Your task to perform on an android device: Add dell xps to the cart on target Image 0: 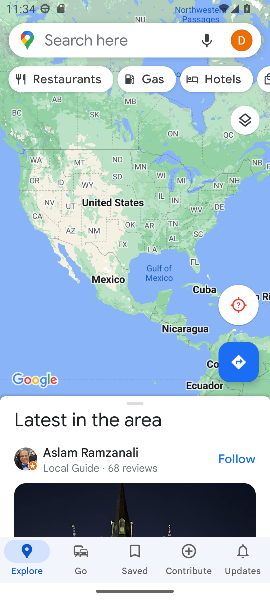
Step 0: press home button
Your task to perform on an android device: Add dell xps to the cart on target Image 1: 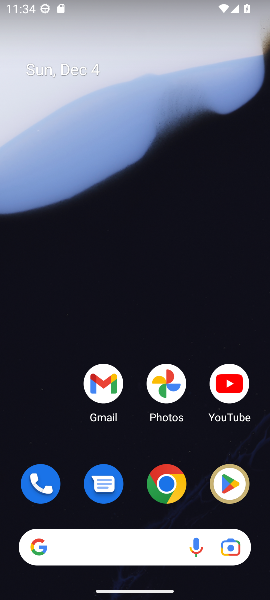
Step 1: click (170, 482)
Your task to perform on an android device: Add dell xps to the cart on target Image 2: 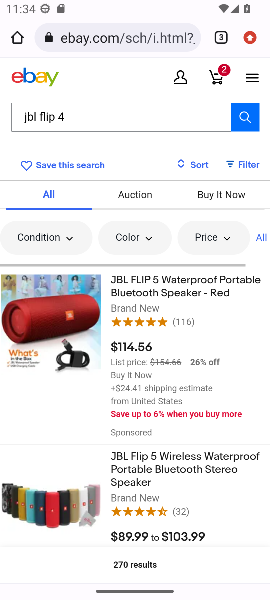
Step 2: click (111, 42)
Your task to perform on an android device: Add dell xps to the cart on target Image 3: 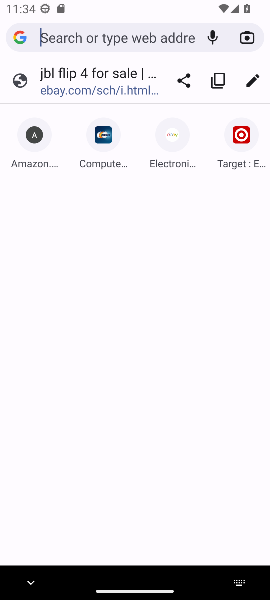
Step 3: click (247, 153)
Your task to perform on an android device: Add dell xps to the cart on target Image 4: 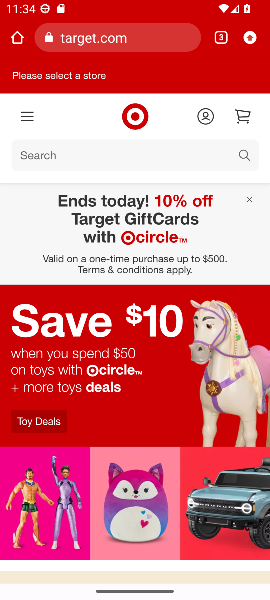
Step 4: click (52, 154)
Your task to perform on an android device: Add dell xps to the cart on target Image 5: 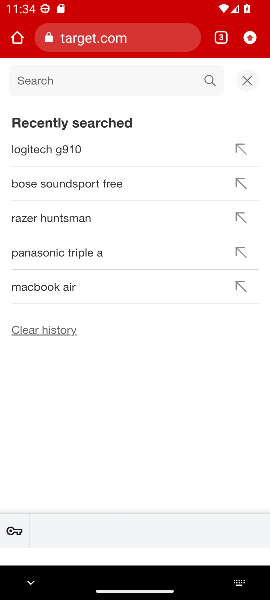
Step 5: type "dell xps"
Your task to perform on an android device: Add dell xps to the cart on target Image 6: 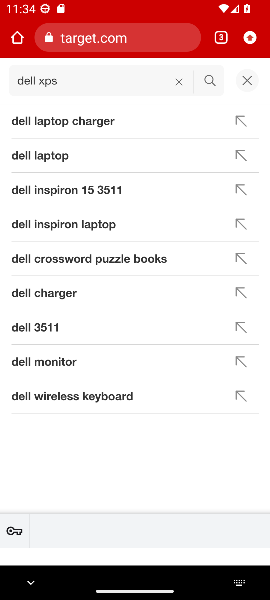
Step 6: click (208, 78)
Your task to perform on an android device: Add dell xps to the cart on target Image 7: 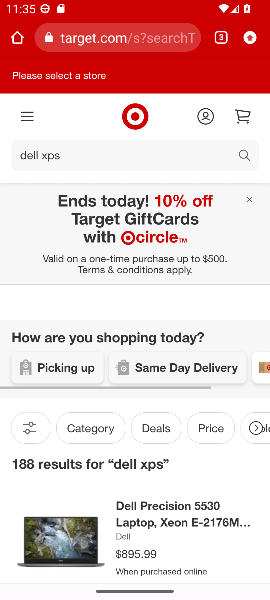
Step 7: task complete